Your task to perform on an android device: Find coffee shops on Maps Image 0: 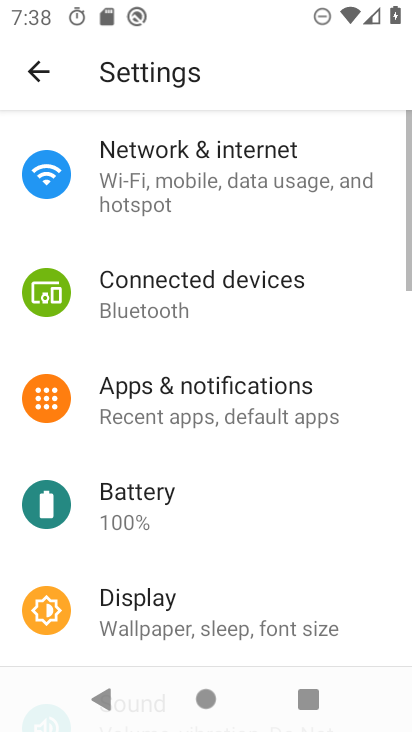
Step 0: press home button
Your task to perform on an android device: Find coffee shops on Maps Image 1: 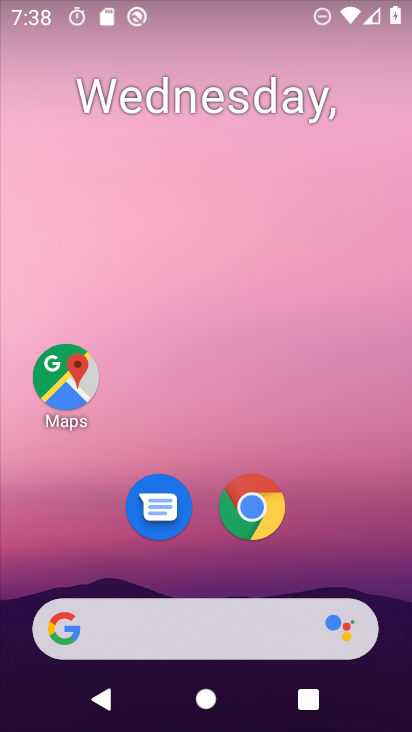
Step 1: click (75, 395)
Your task to perform on an android device: Find coffee shops on Maps Image 2: 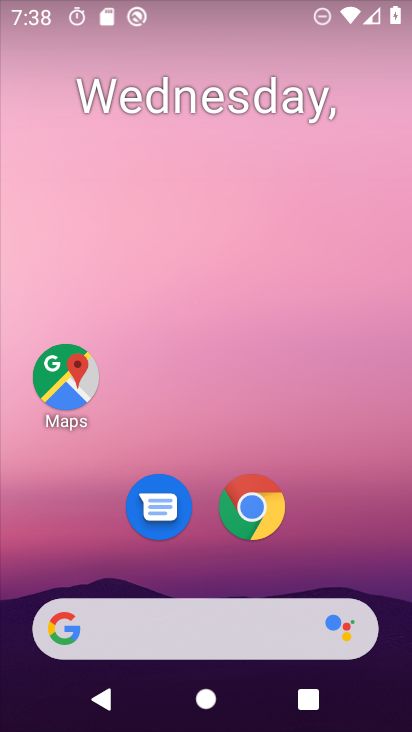
Step 2: click (75, 395)
Your task to perform on an android device: Find coffee shops on Maps Image 3: 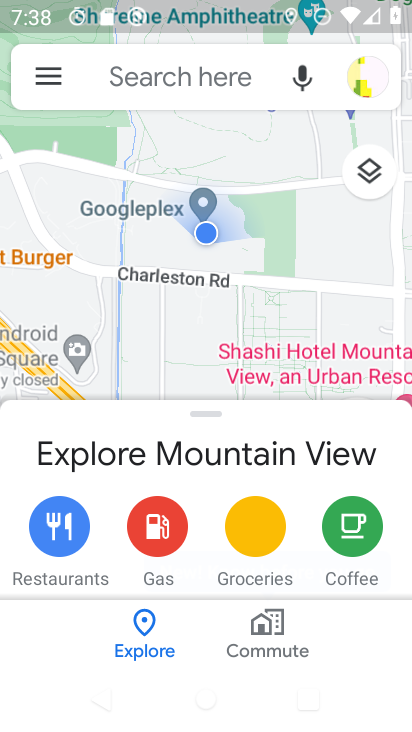
Step 3: click (187, 93)
Your task to perform on an android device: Find coffee shops on Maps Image 4: 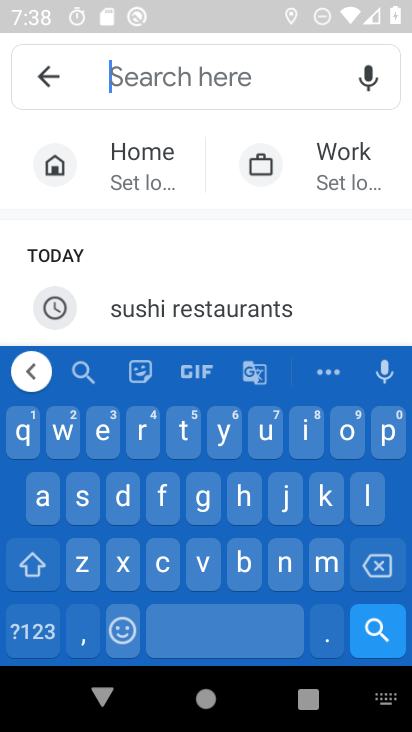
Step 4: click (161, 568)
Your task to perform on an android device: Find coffee shops on Maps Image 5: 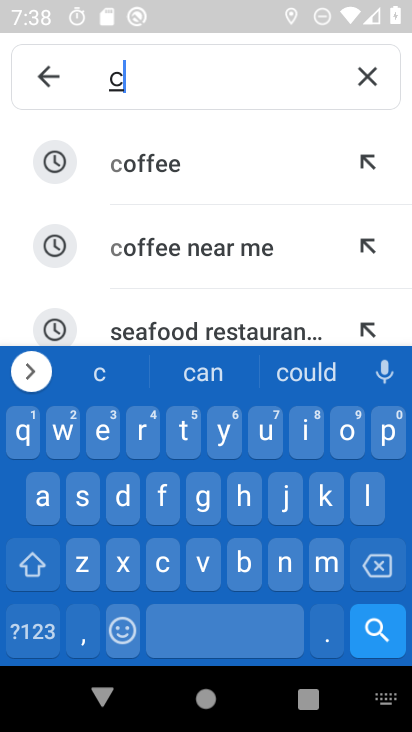
Step 5: click (156, 183)
Your task to perform on an android device: Find coffee shops on Maps Image 6: 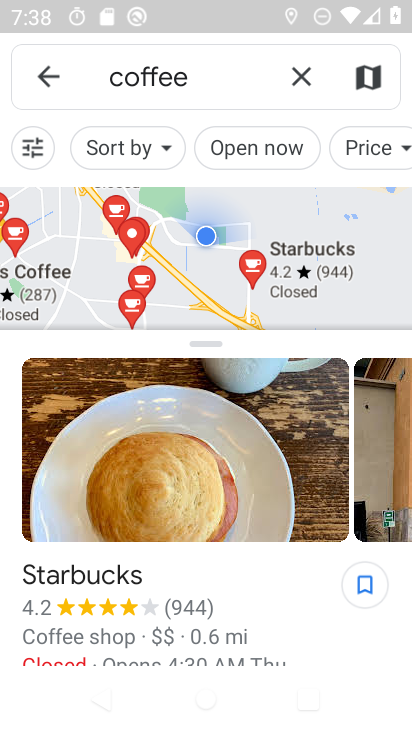
Step 6: click (107, 235)
Your task to perform on an android device: Find coffee shops on Maps Image 7: 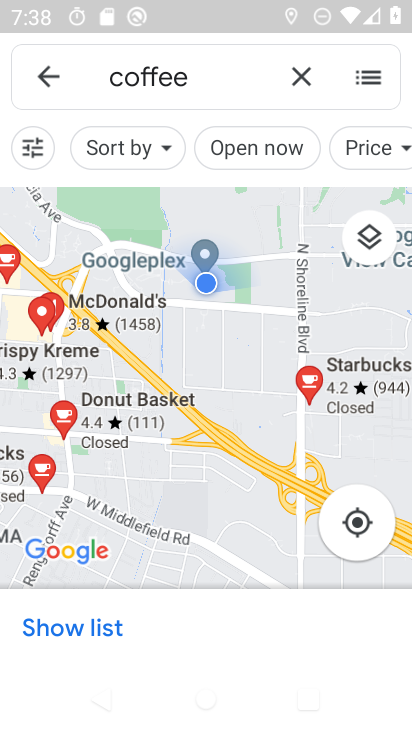
Step 7: task complete